Your task to perform on an android device: Open Yahoo.com Image 0: 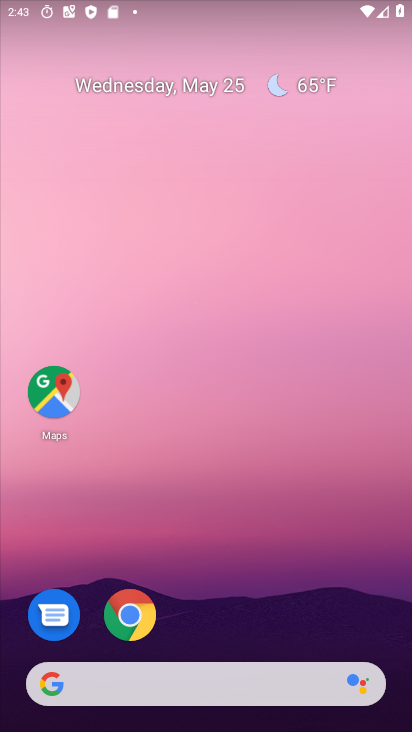
Step 0: click (116, 615)
Your task to perform on an android device: Open Yahoo.com Image 1: 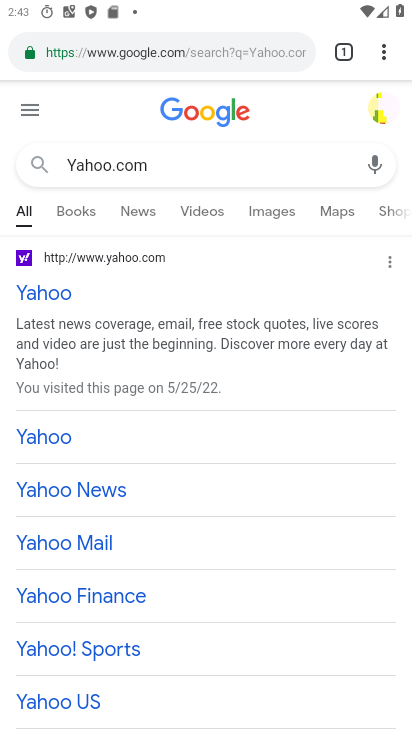
Step 1: click (252, 53)
Your task to perform on an android device: Open Yahoo.com Image 2: 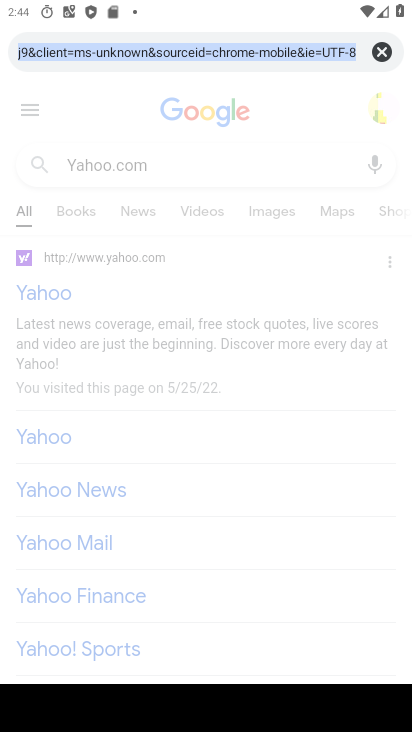
Step 2: click (380, 50)
Your task to perform on an android device: Open Yahoo.com Image 3: 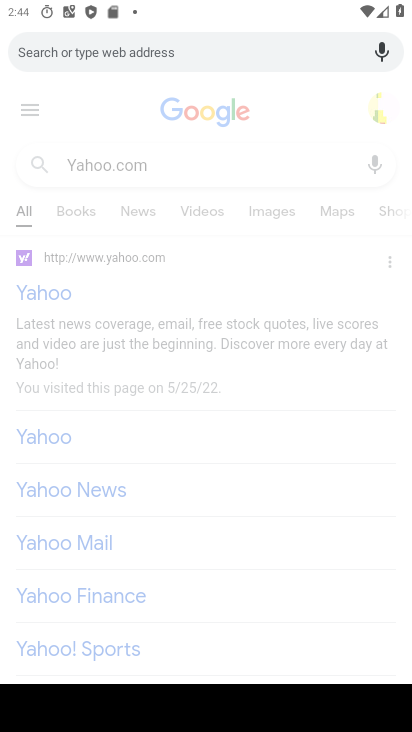
Step 3: type "Yahoo.com"
Your task to perform on an android device: Open Yahoo.com Image 4: 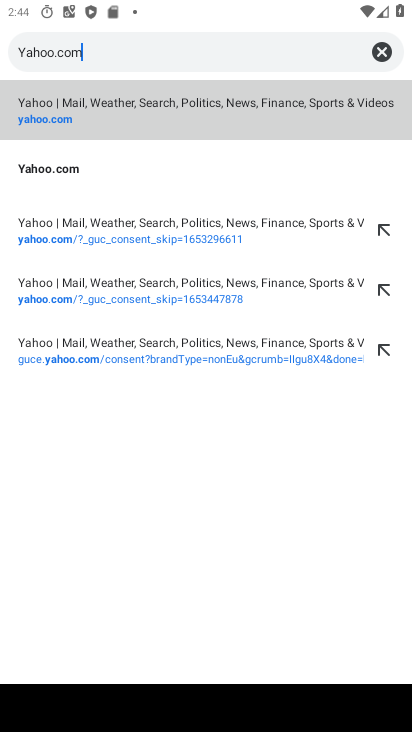
Step 4: click (64, 168)
Your task to perform on an android device: Open Yahoo.com Image 5: 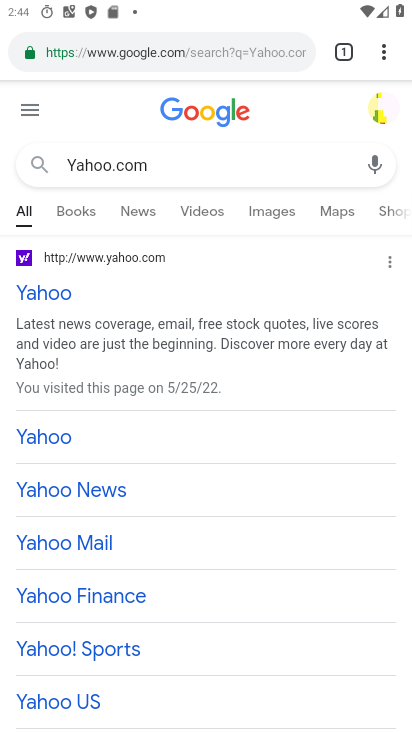
Step 5: task complete